Your task to perform on an android device: Turn off the flashlight Image 0: 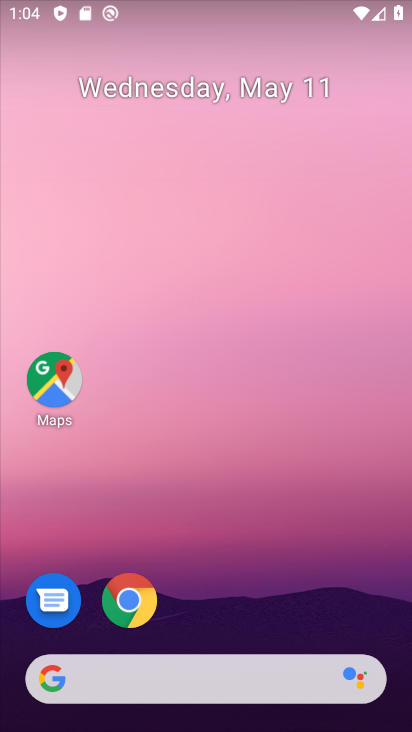
Step 0: drag from (208, 619) to (200, 53)
Your task to perform on an android device: Turn off the flashlight Image 1: 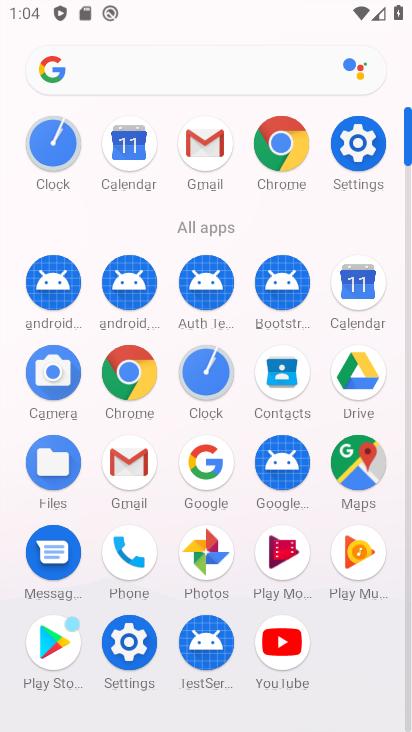
Step 1: click (354, 134)
Your task to perform on an android device: Turn off the flashlight Image 2: 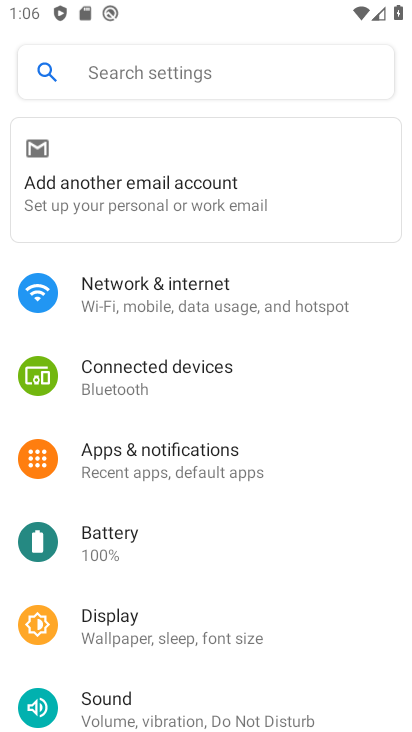
Step 2: task complete